Your task to perform on an android device: Open Google Chrome and click the shortcut for Amazon.com Image 0: 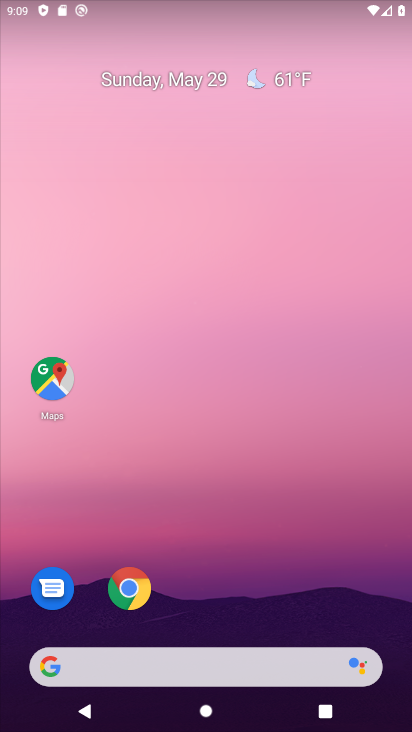
Step 0: drag from (287, 518) to (273, 68)
Your task to perform on an android device: Open Google Chrome and click the shortcut for Amazon.com Image 1: 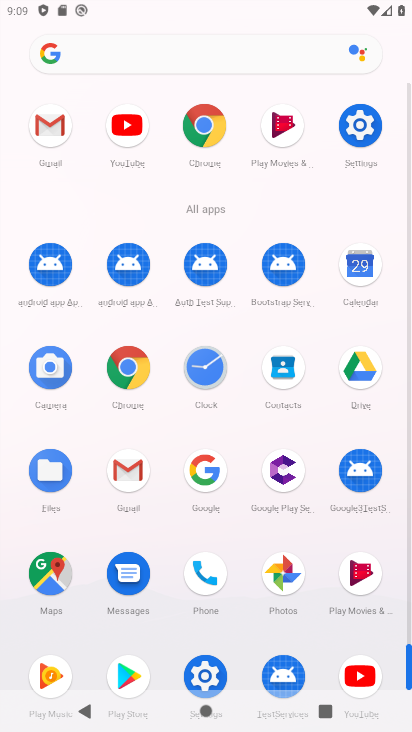
Step 1: click (125, 381)
Your task to perform on an android device: Open Google Chrome and click the shortcut for Amazon.com Image 2: 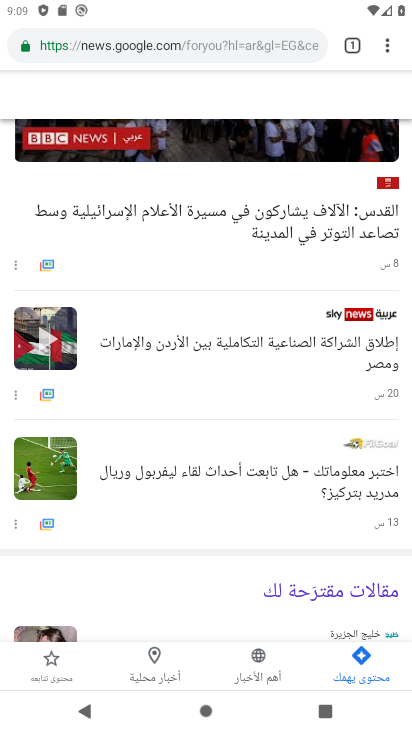
Step 2: drag from (384, 44) to (258, 98)
Your task to perform on an android device: Open Google Chrome and click the shortcut for Amazon.com Image 3: 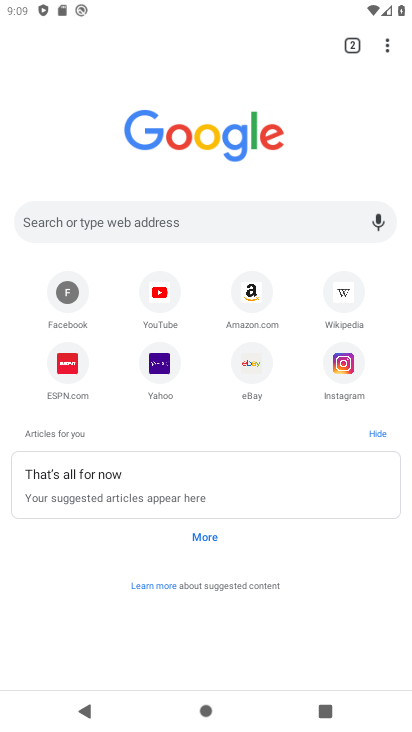
Step 3: click (258, 284)
Your task to perform on an android device: Open Google Chrome and click the shortcut for Amazon.com Image 4: 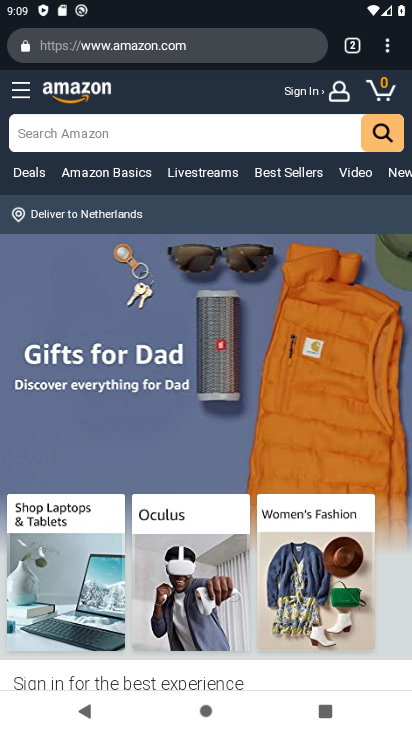
Step 4: task complete